Your task to perform on an android device: clear history in the chrome app Image 0: 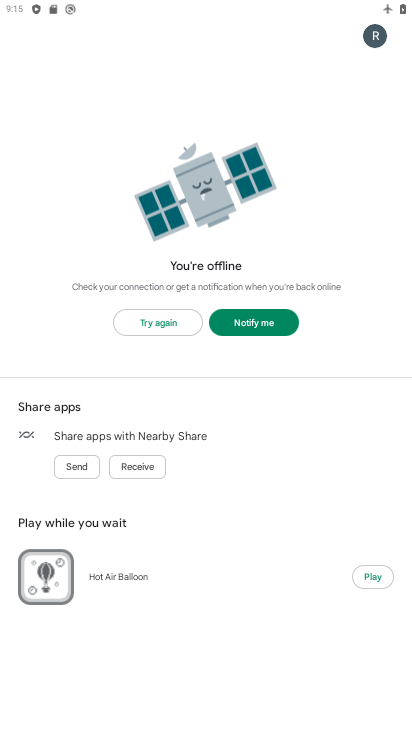
Step 0: press home button
Your task to perform on an android device: clear history in the chrome app Image 1: 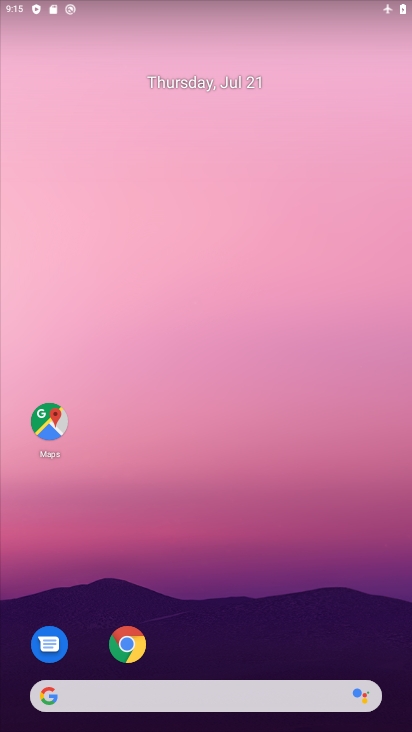
Step 1: click (125, 646)
Your task to perform on an android device: clear history in the chrome app Image 2: 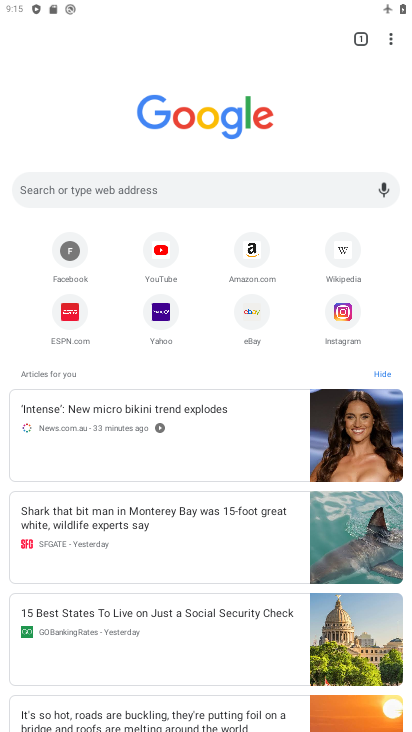
Step 2: click (390, 44)
Your task to perform on an android device: clear history in the chrome app Image 3: 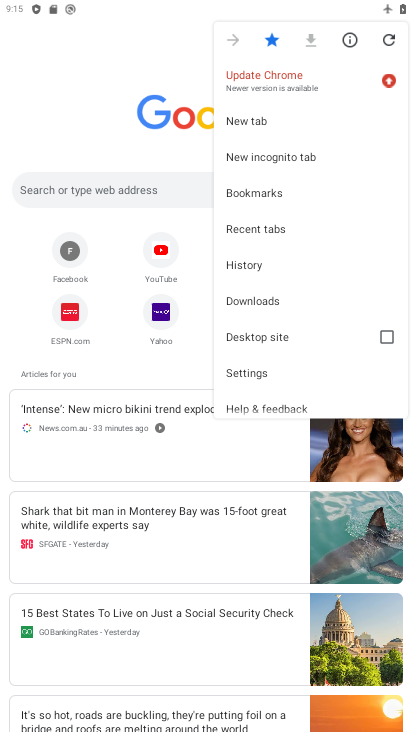
Step 3: click (252, 370)
Your task to perform on an android device: clear history in the chrome app Image 4: 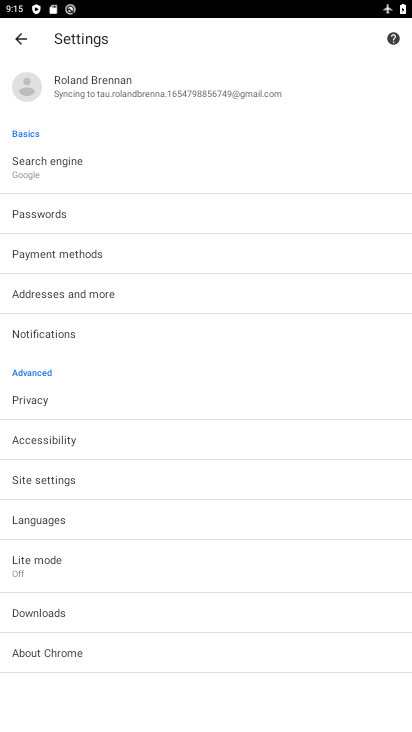
Step 4: click (37, 393)
Your task to perform on an android device: clear history in the chrome app Image 5: 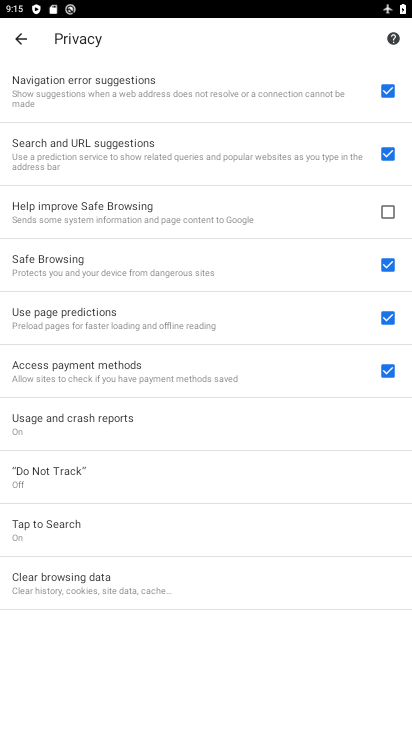
Step 5: click (95, 587)
Your task to perform on an android device: clear history in the chrome app Image 6: 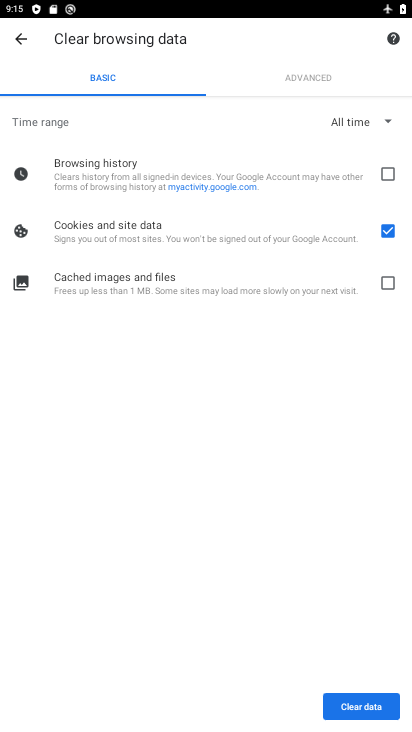
Step 6: click (390, 179)
Your task to perform on an android device: clear history in the chrome app Image 7: 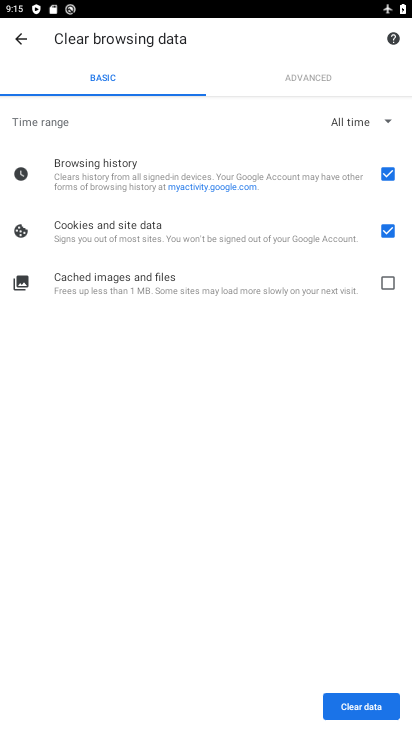
Step 7: click (386, 236)
Your task to perform on an android device: clear history in the chrome app Image 8: 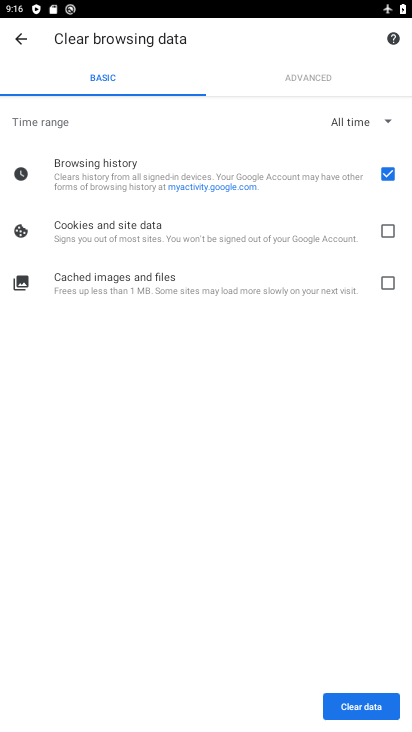
Step 8: click (359, 710)
Your task to perform on an android device: clear history in the chrome app Image 9: 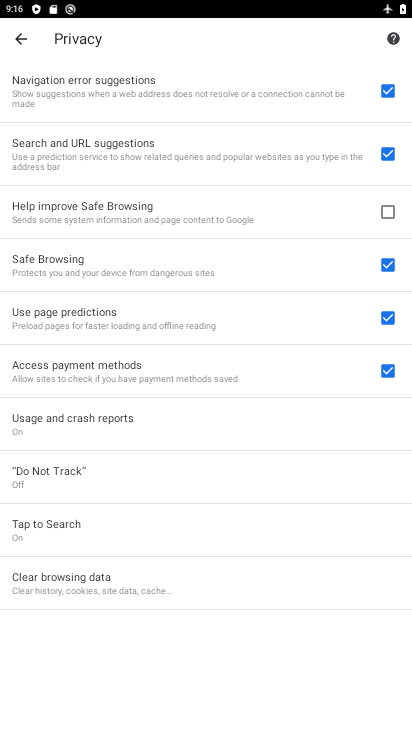
Step 9: task complete